Your task to perform on an android device: turn off translation in the chrome app Image 0: 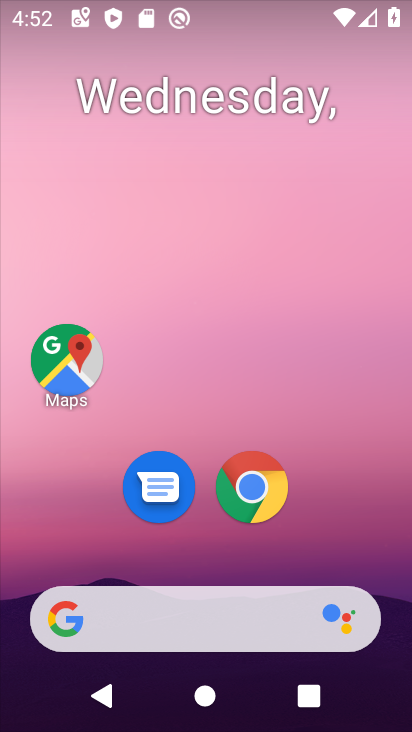
Step 0: drag from (220, 535) to (259, 45)
Your task to perform on an android device: turn off translation in the chrome app Image 1: 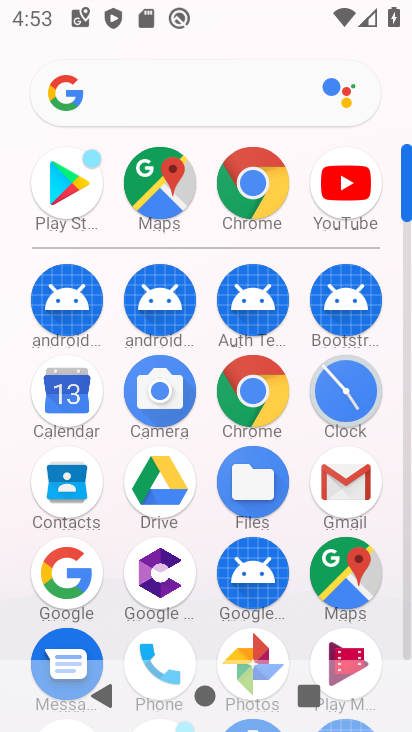
Step 1: click (266, 170)
Your task to perform on an android device: turn off translation in the chrome app Image 2: 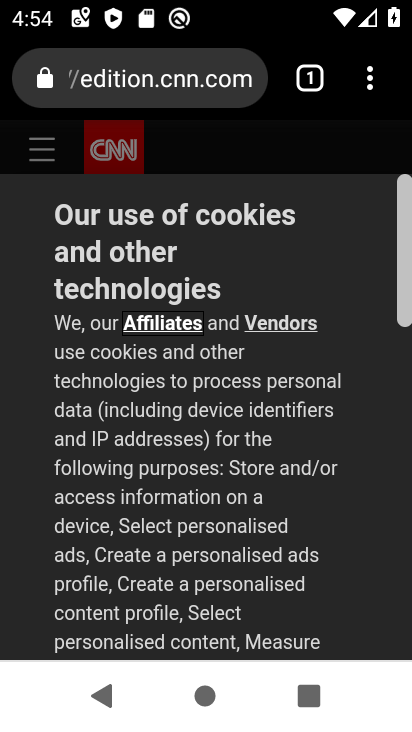
Step 2: click (369, 100)
Your task to perform on an android device: turn off translation in the chrome app Image 3: 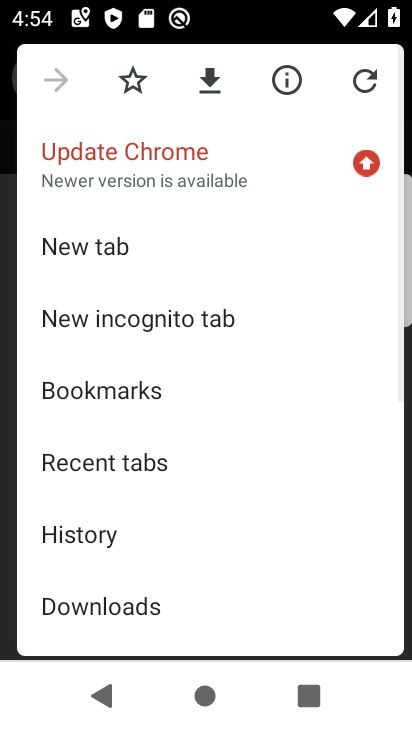
Step 3: task complete